Your task to perform on an android device: See recent photos Image 0: 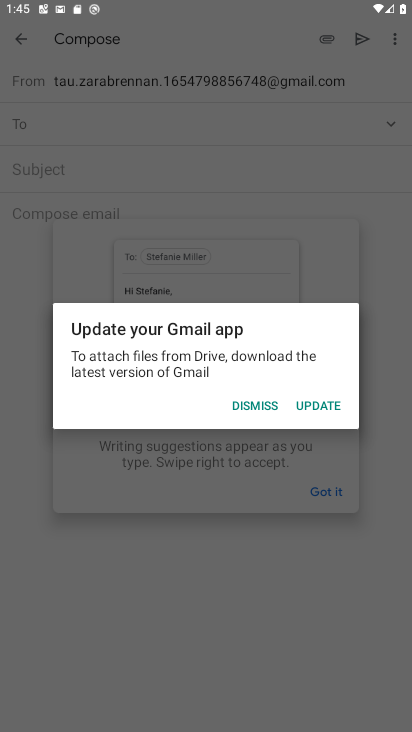
Step 0: press home button
Your task to perform on an android device: See recent photos Image 1: 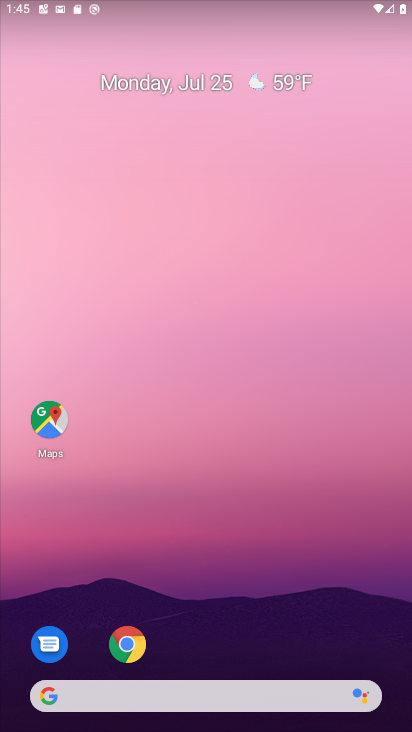
Step 1: drag from (402, 713) to (324, 37)
Your task to perform on an android device: See recent photos Image 2: 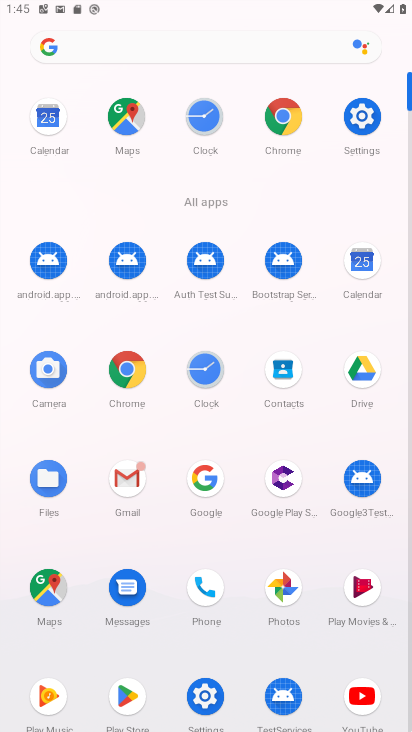
Step 2: click (287, 587)
Your task to perform on an android device: See recent photos Image 3: 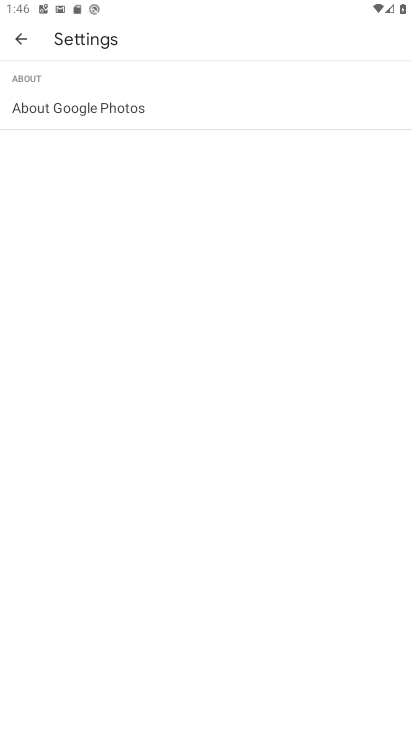
Step 3: click (13, 43)
Your task to perform on an android device: See recent photos Image 4: 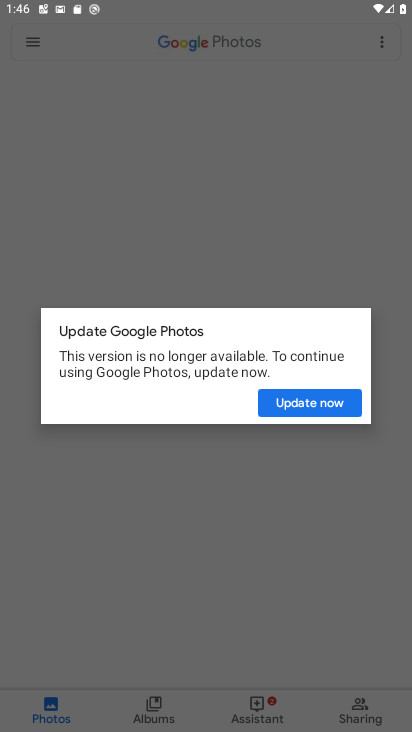
Step 4: press home button
Your task to perform on an android device: See recent photos Image 5: 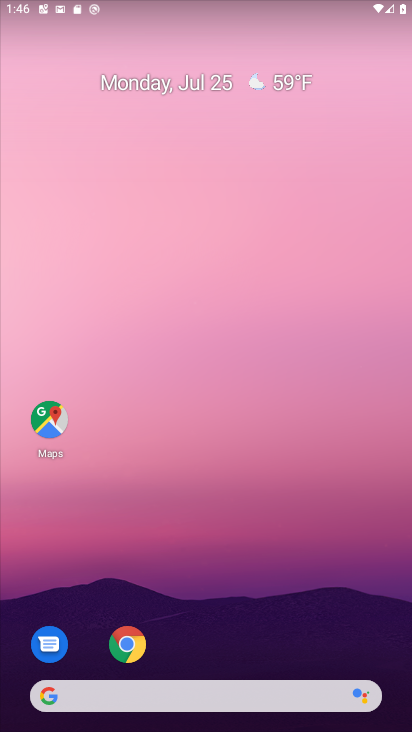
Step 5: drag from (401, 700) to (314, 126)
Your task to perform on an android device: See recent photos Image 6: 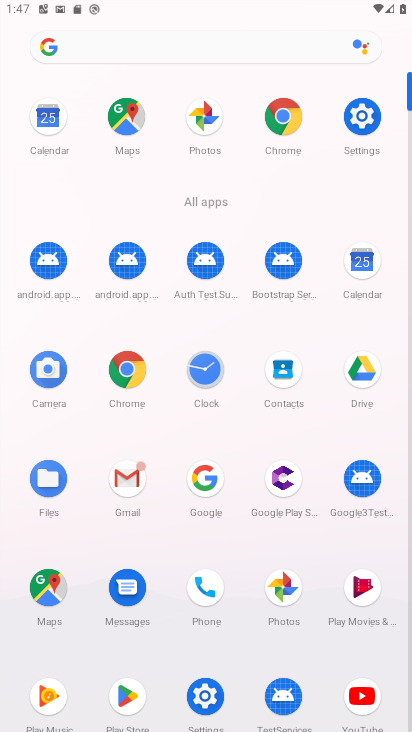
Step 6: click (291, 587)
Your task to perform on an android device: See recent photos Image 7: 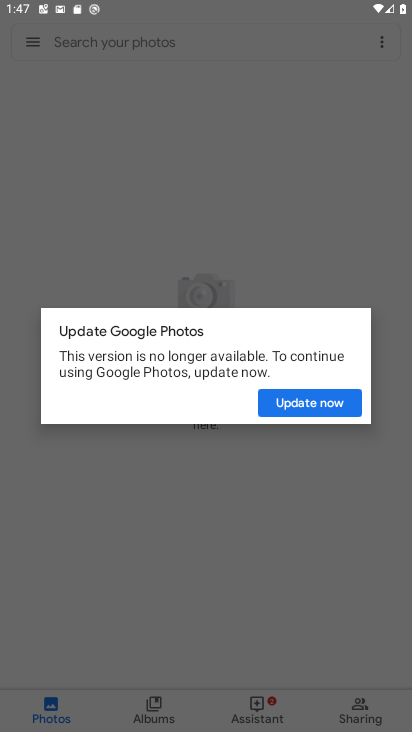
Step 7: press home button
Your task to perform on an android device: See recent photos Image 8: 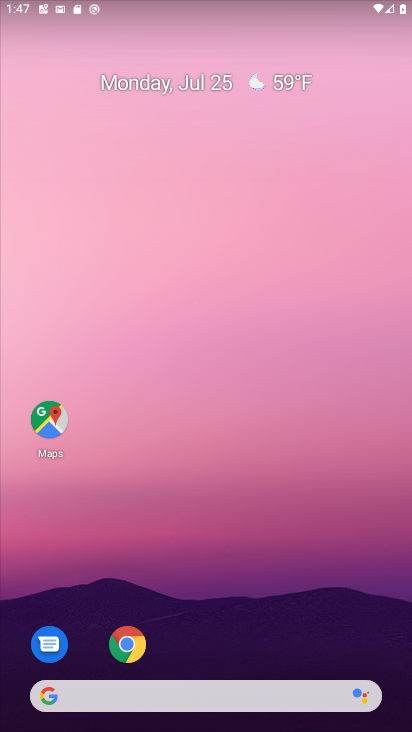
Step 8: drag from (394, 577) to (224, 46)
Your task to perform on an android device: See recent photos Image 9: 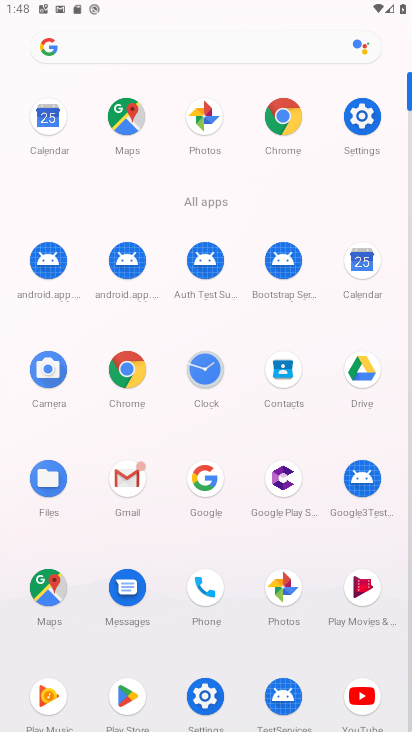
Step 9: click (268, 580)
Your task to perform on an android device: See recent photos Image 10: 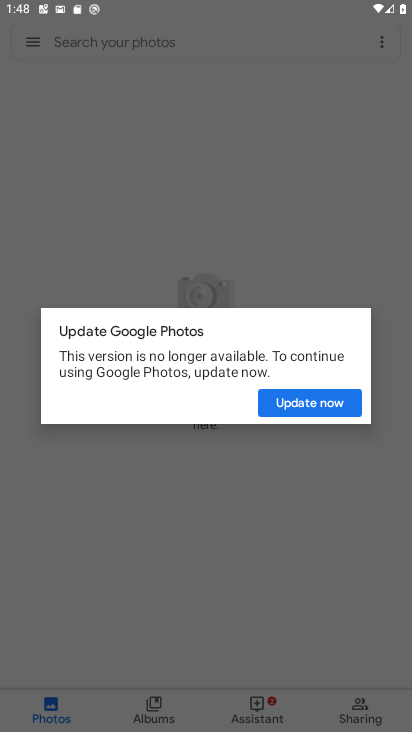
Step 10: click (286, 393)
Your task to perform on an android device: See recent photos Image 11: 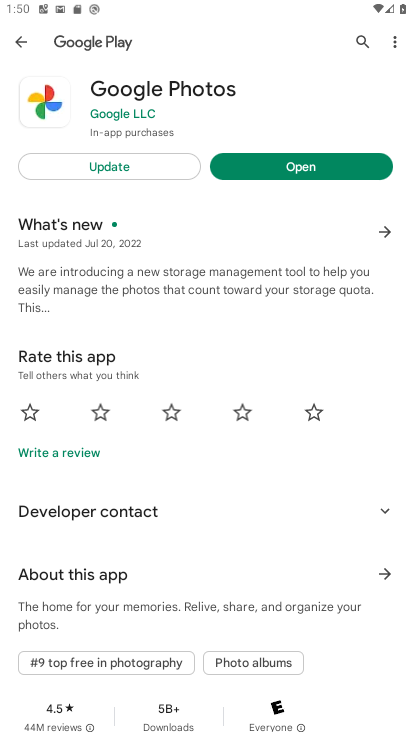
Step 11: click (260, 160)
Your task to perform on an android device: See recent photos Image 12: 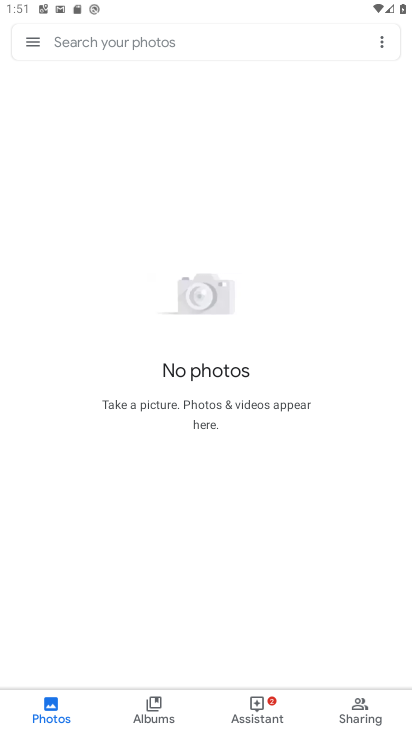
Step 12: task complete